Your task to perform on an android device: Open calendar and show me the second week of next month Image 0: 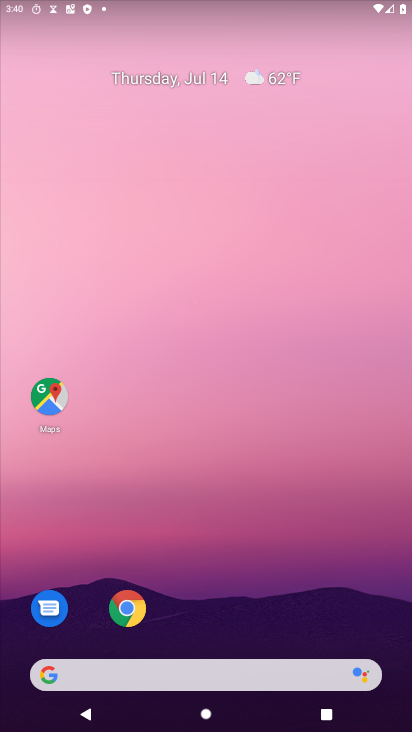
Step 0: drag from (175, 664) to (171, 179)
Your task to perform on an android device: Open calendar and show me the second week of next month Image 1: 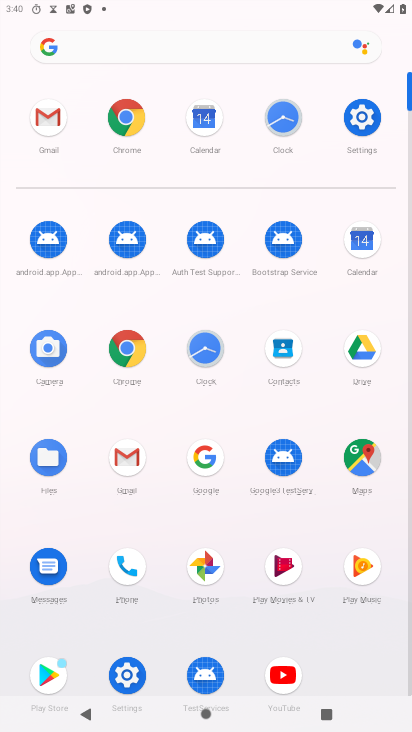
Step 1: click (364, 248)
Your task to perform on an android device: Open calendar and show me the second week of next month Image 2: 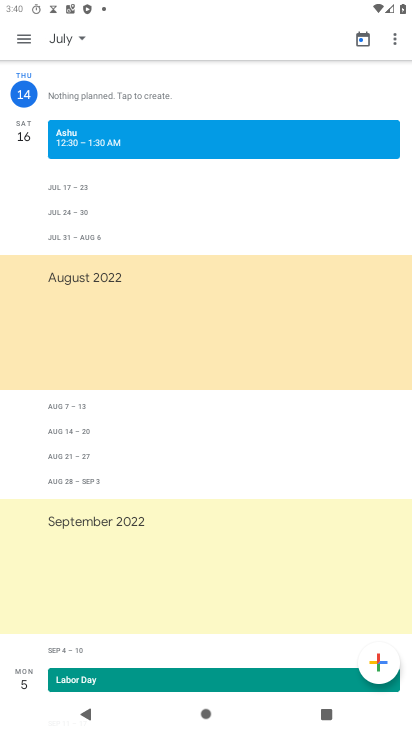
Step 2: click (20, 42)
Your task to perform on an android device: Open calendar and show me the second week of next month Image 3: 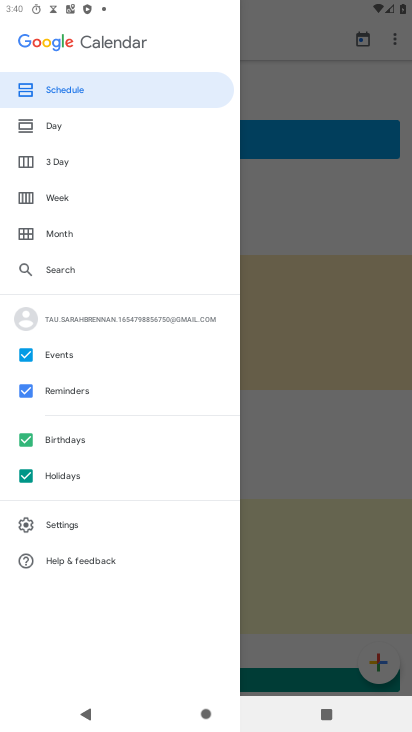
Step 3: click (66, 228)
Your task to perform on an android device: Open calendar and show me the second week of next month Image 4: 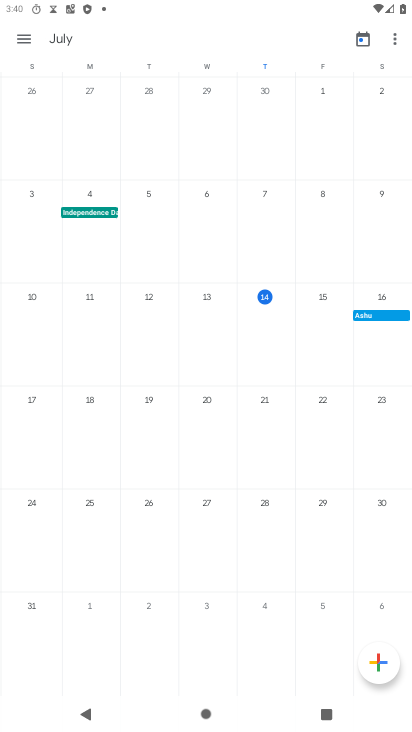
Step 4: task complete